Your task to perform on an android device: Go to Google maps Image 0: 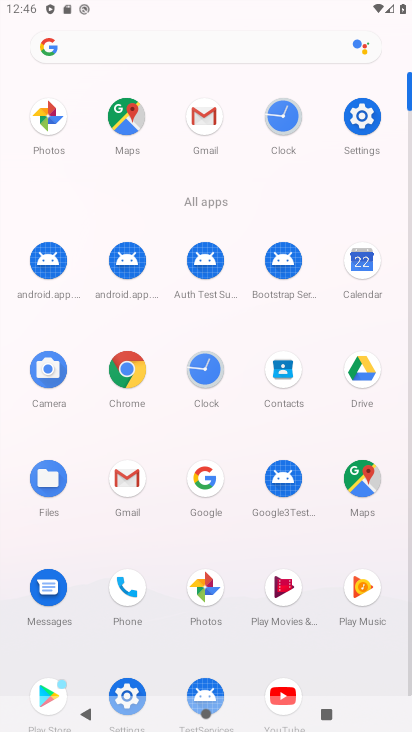
Step 0: click (410, 667)
Your task to perform on an android device: Go to Google maps Image 1: 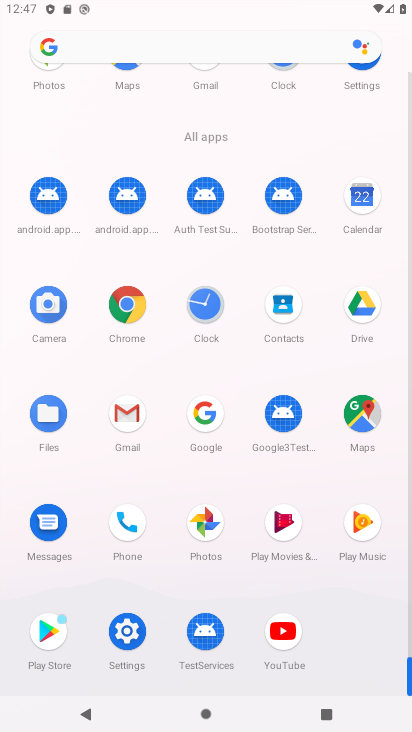
Step 1: click (360, 409)
Your task to perform on an android device: Go to Google maps Image 2: 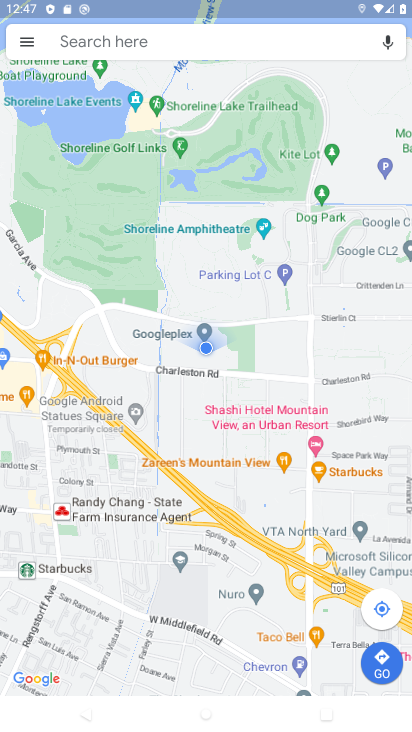
Step 2: task complete